Your task to perform on an android device: change alarm snooze length Image 0: 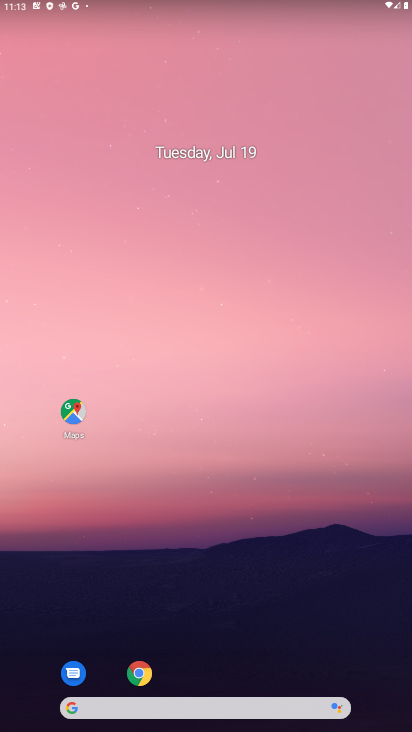
Step 0: drag from (210, 673) to (98, 28)
Your task to perform on an android device: change alarm snooze length Image 1: 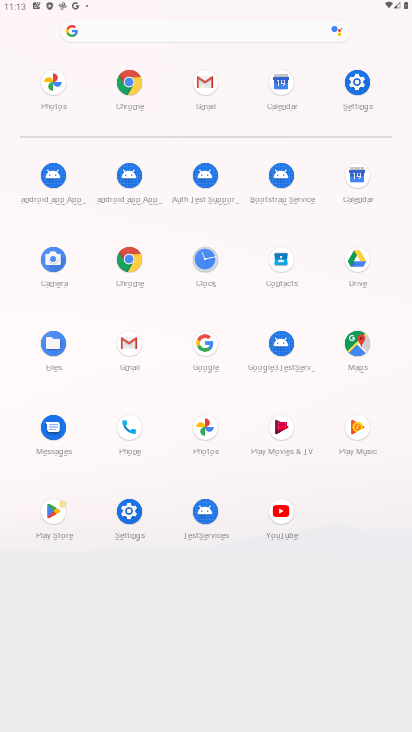
Step 1: click (337, 78)
Your task to perform on an android device: change alarm snooze length Image 2: 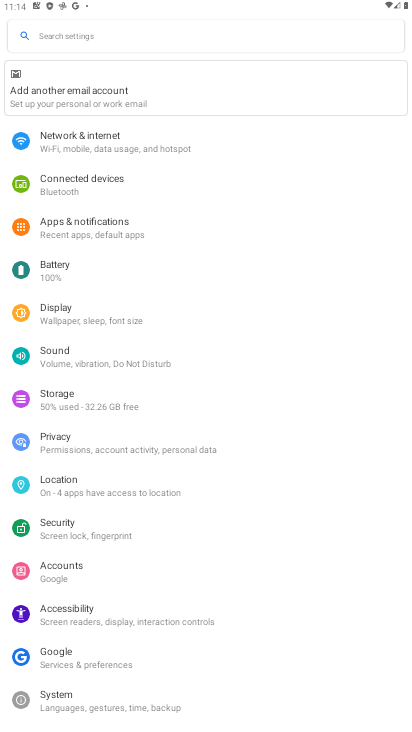
Step 2: task complete